Your task to perform on an android device: open the mobile data screen to see how much data has been used Image 0: 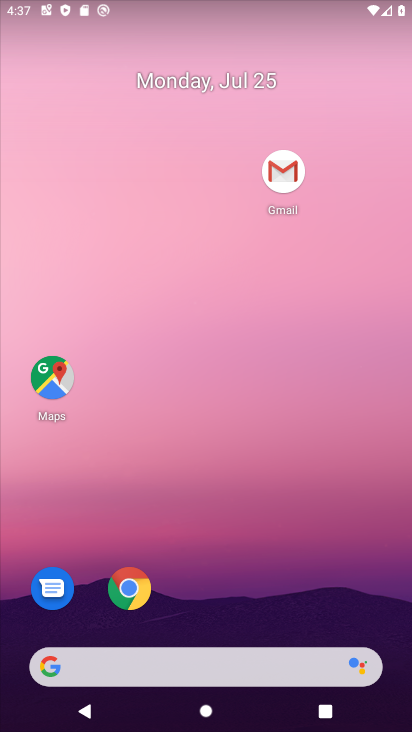
Step 0: drag from (306, 496) to (198, 0)
Your task to perform on an android device: open the mobile data screen to see how much data has been used Image 1: 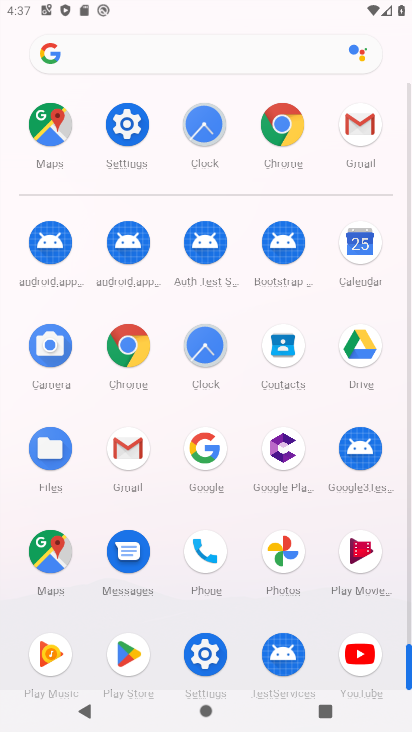
Step 1: click (132, 125)
Your task to perform on an android device: open the mobile data screen to see how much data has been used Image 2: 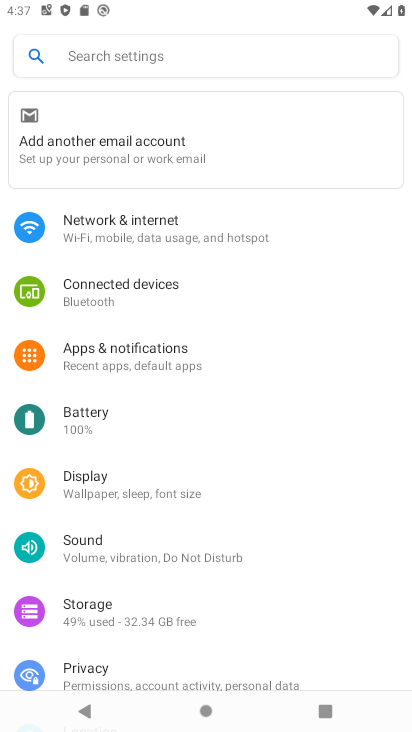
Step 2: click (172, 229)
Your task to perform on an android device: open the mobile data screen to see how much data has been used Image 3: 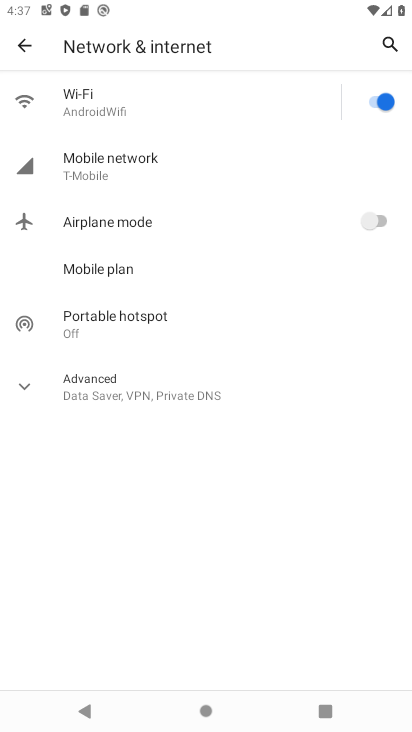
Step 3: click (148, 177)
Your task to perform on an android device: open the mobile data screen to see how much data has been used Image 4: 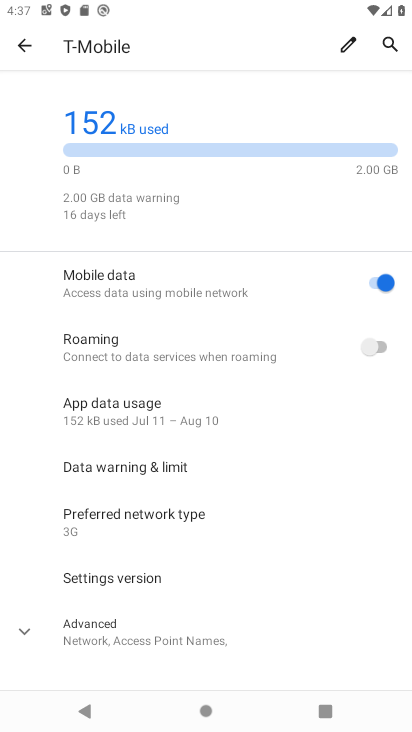
Step 4: task complete